Your task to perform on an android device: toggle data saver in the chrome app Image 0: 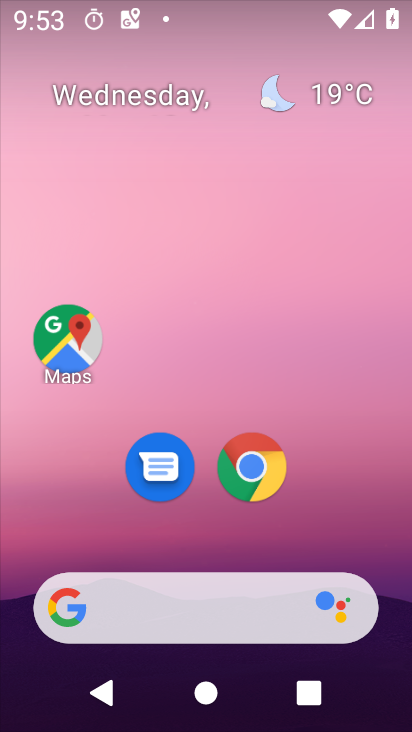
Step 0: click (243, 470)
Your task to perform on an android device: toggle data saver in the chrome app Image 1: 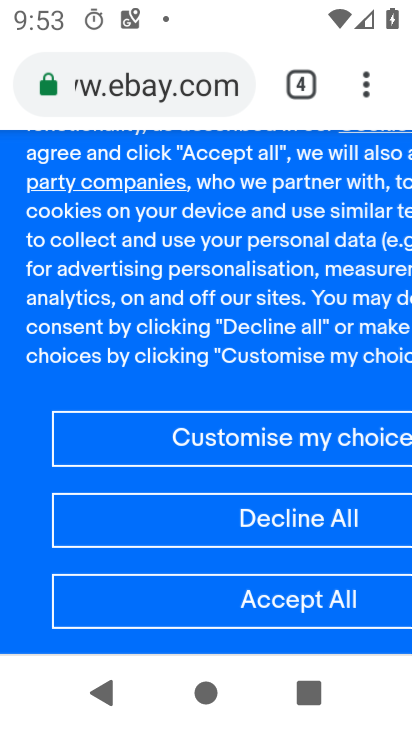
Step 1: click (362, 68)
Your task to perform on an android device: toggle data saver in the chrome app Image 2: 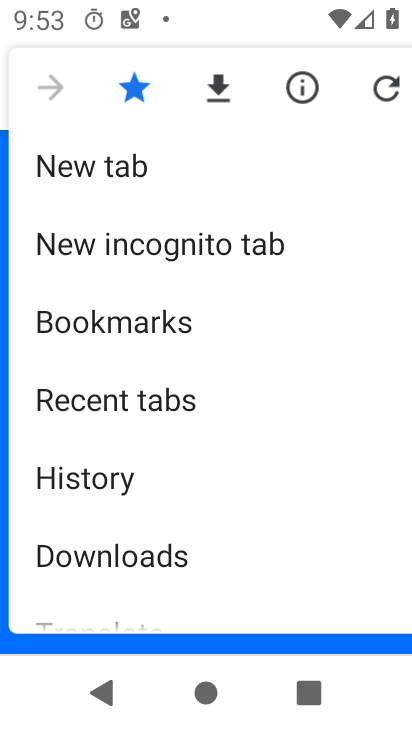
Step 2: drag from (193, 565) to (183, 126)
Your task to perform on an android device: toggle data saver in the chrome app Image 3: 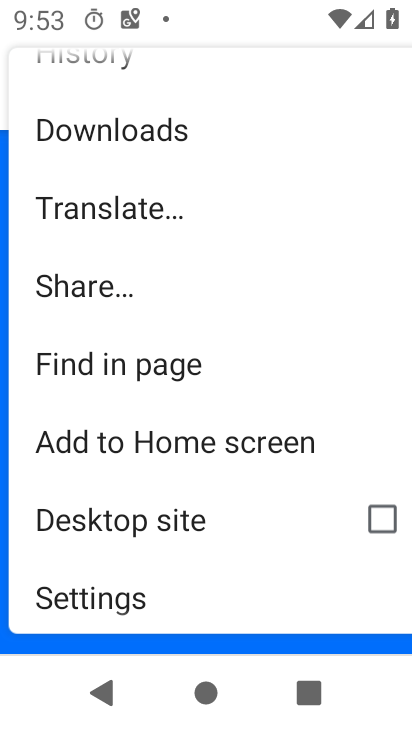
Step 3: click (146, 591)
Your task to perform on an android device: toggle data saver in the chrome app Image 4: 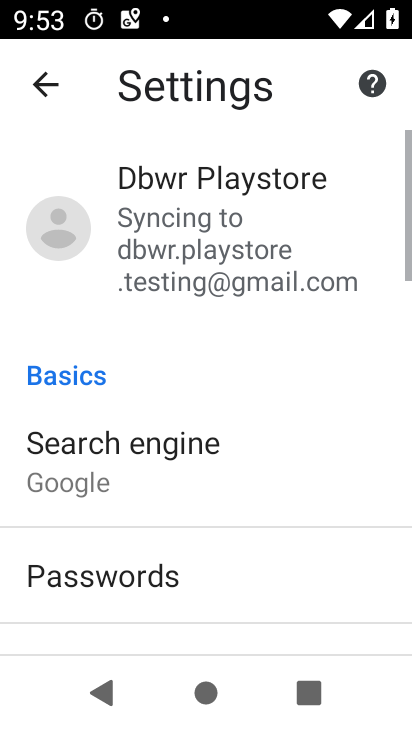
Step 4: drag from (215, 547) to (195, 120)
Your task to perform on an android device: toggle data saver in the chrome app Image 5: 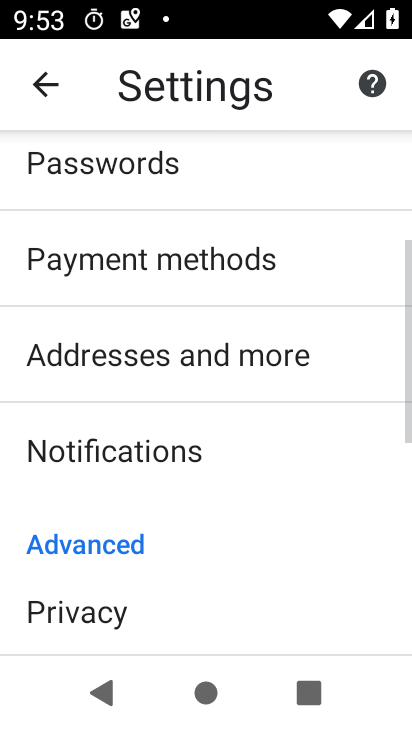
Step 5: drag from (202, 564) to (191, 175)
Your task to perform on an android device: toggle data saver in the chrome app Image 6: 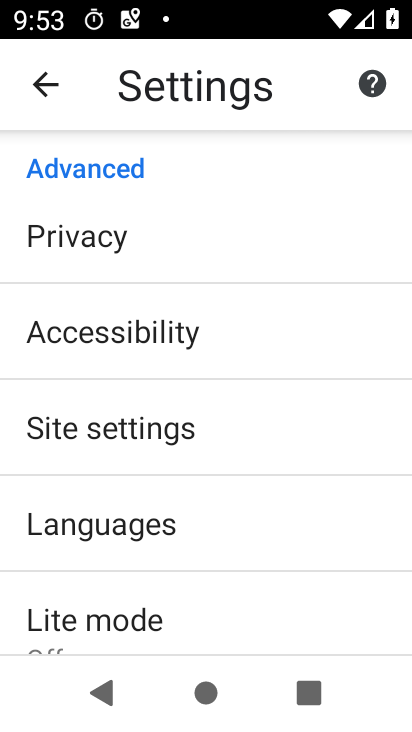
Step 6: click (172, 614)
Your task to perform on an android device: toggle data saver in the chrome app Image 7: 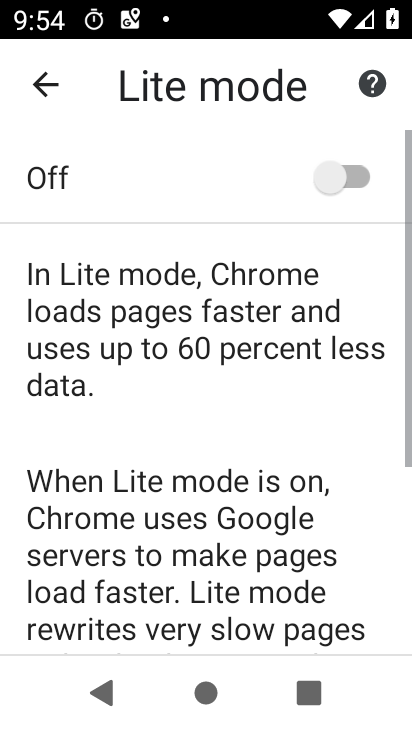
Step 7: click (363, 170)
Your task to perform on an android device: toggle data saver in the chrome app Image 8: 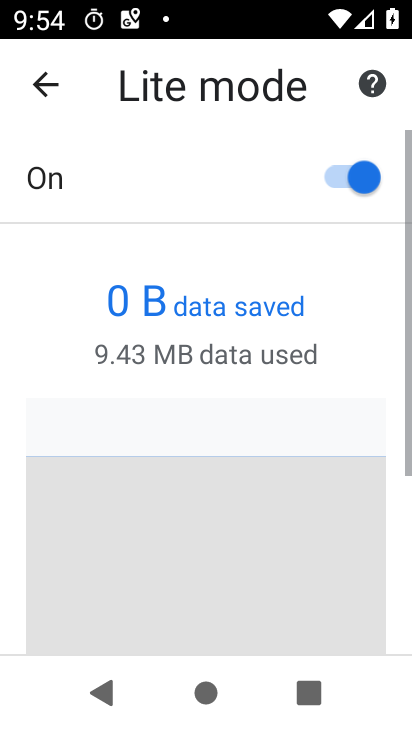
Step 8: task complete